Your task to perform on an android device: Open display settings Image 0: 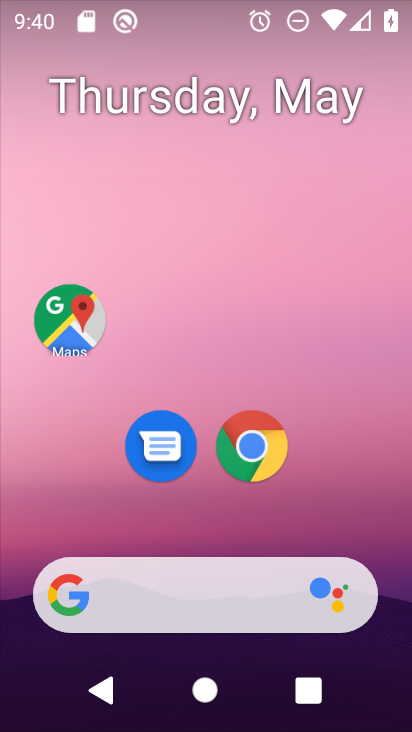
Step 0: drag from (377, 524) to (327, 115)
Your task to perform on an android device: Open display settings Image 1: 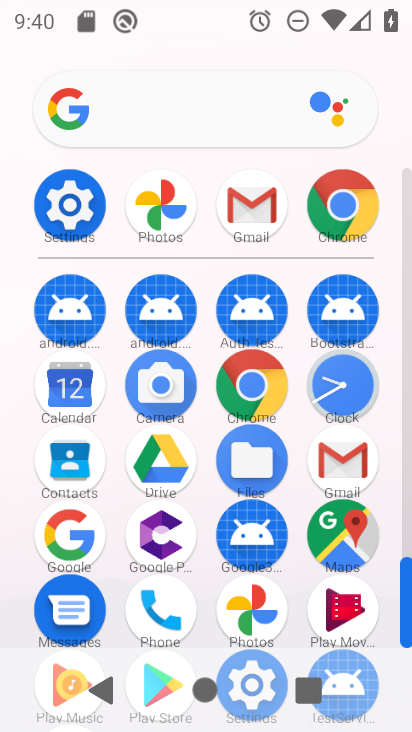
Step 1: click (54, 220)
Your task to perform on an android device: Open display settings Image 2: 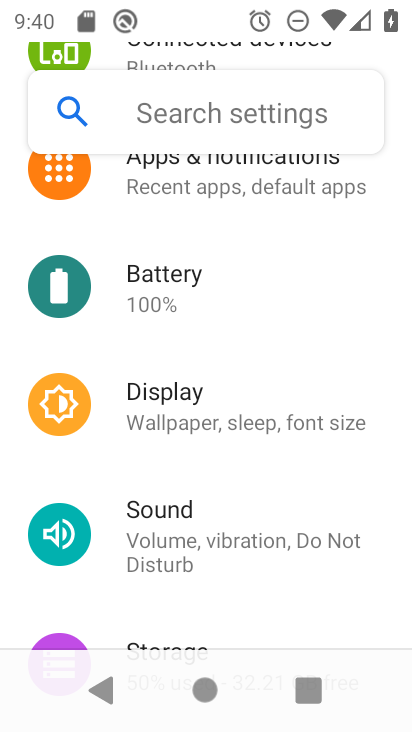
Step 2: drag from (192, 212) to (213, 377)
Your task to perform on an android device: Open display settings Image 3: 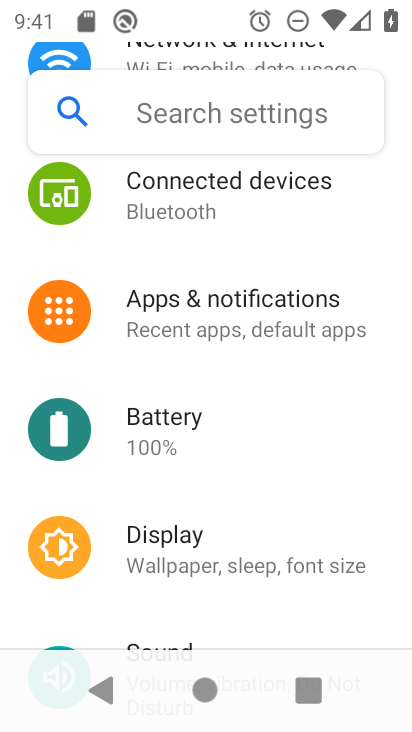
Step 3: click (200, 565)
Your task to perform on an android device: Open display settings Image 4: 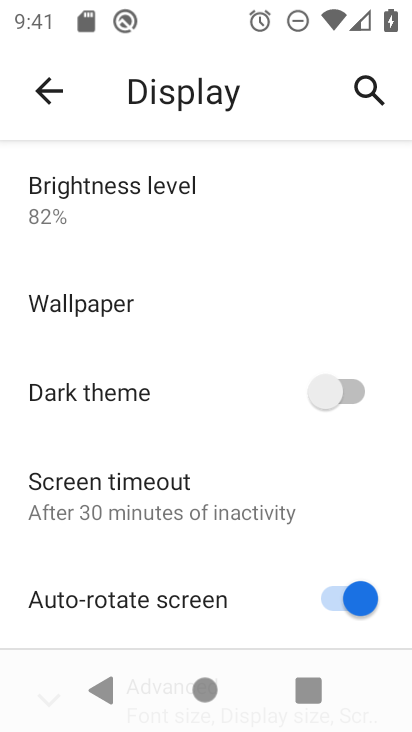
Step 4: task complete